Your task to perform on an android device: Go to display settings Image 0: 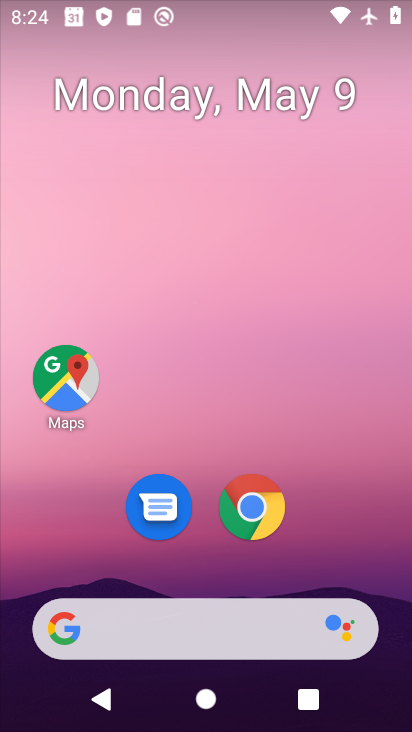
Step 0: drag from (197, 583) to (169, 5)
Your task to perform on an android device: Go to display settings Image 1: 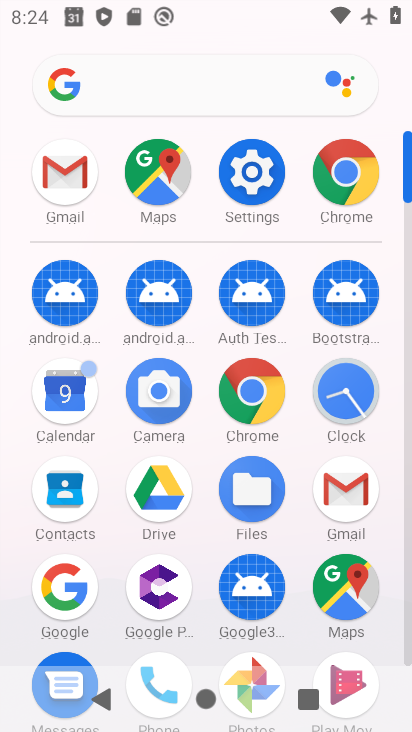
Step 1: click (245, 175)
Your task to perform on an android device: Go to display settings Image 2: 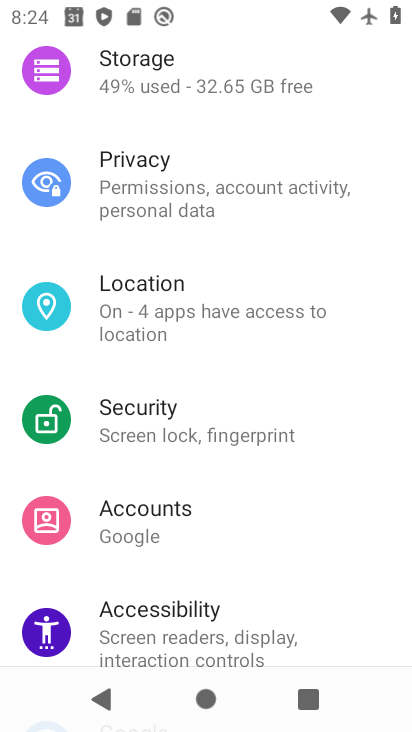
Step 2: drag from (213, 170) to (130, 659)
Your task to perform on an android device: Go to display settings Image 3: 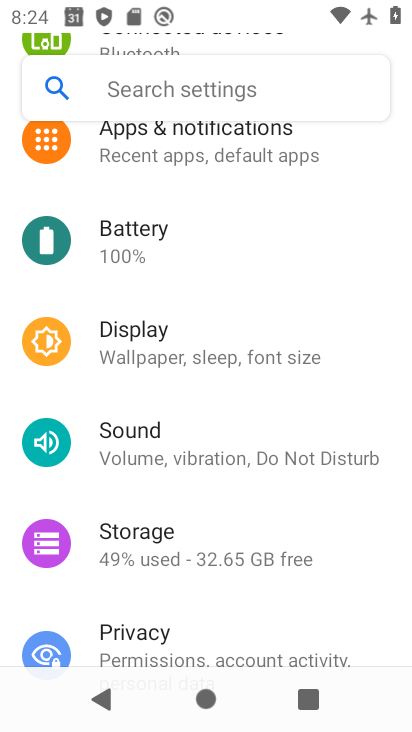
Step 3: click (140, 349)
Your task to perform on an android device: Go to display settings Image 4: 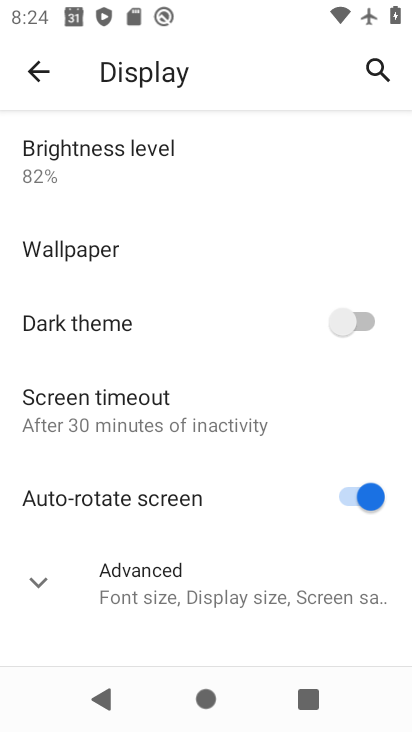
Step 4: click (165, 607)
Your task to perform on an android device: Go to display settings Image 5: 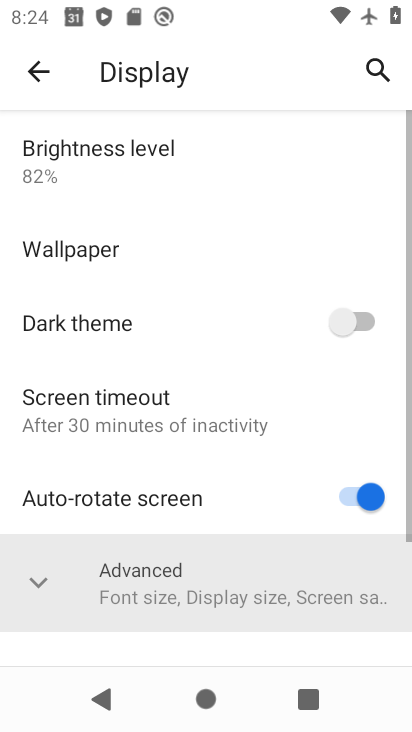
Step 5: task complete